Your task to perform on an android device: Search for razer blade on target, select the first entry, add it to the cart, then select checkout. Image 0: 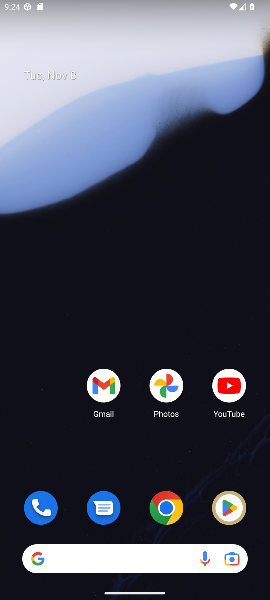
Step 0: click (166, 514)
Your task to perform on an android device: Search for razer blade on target, select the first entry, add it to the cart, then select checkout. Image 1: 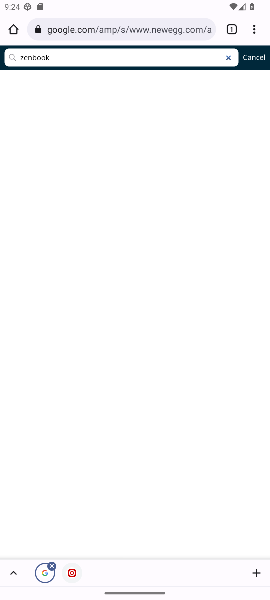
Step 1: click (95, 29)
Your task to perform on an android device: Search for razer blade on target, select the first entry, add it to the cart, then select checkout. Image 2: 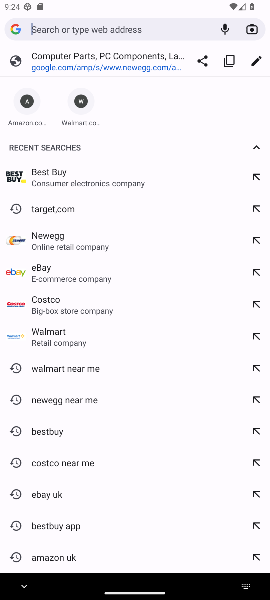
Step 2: type "target"
Your task to perform on an android device: Search for razer blade on target, select the first entry, add it to the cart, then select checkout. Image 3: 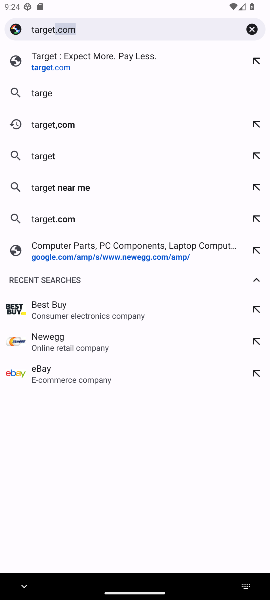
Step 3: type ""
Your task to perform on an android device: Search for razer blade on target, select the first entry, add it to the cart, then select checkout. Image 4: 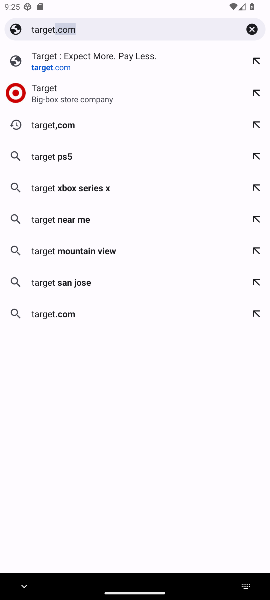
Step 4: click (49, 98)
Your task to perform on an android device: Search for razer blade on target, select the first entry, add it to the cart, then select checkout. Image 5: 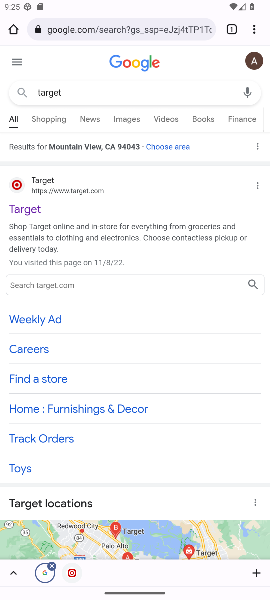
Step 5: click (37, 205)
Your task to perform on an android device: Search for razer blade on target, select the first entry, add it to the cart, then select checkout. Image 6: 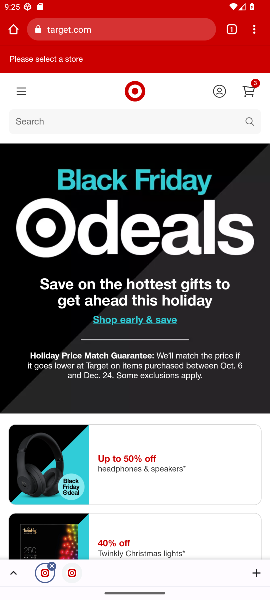
Step 6: click (152, 119)
Your task to perform on an android device: Search for razer blade on target, select the first entry, add it to the cart, then select checkout. Image 7: 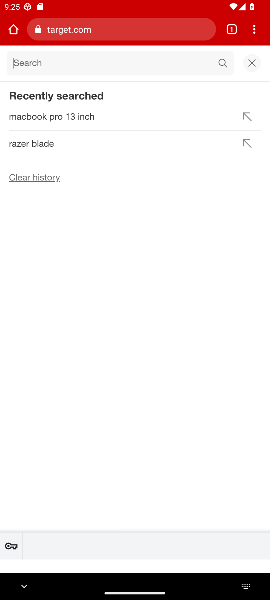
Step 7: type "razer blade"
Your task to perform on an android device: Search for razer blade on target, select the first entry, add it to the cart, then select checkout. Image 8: 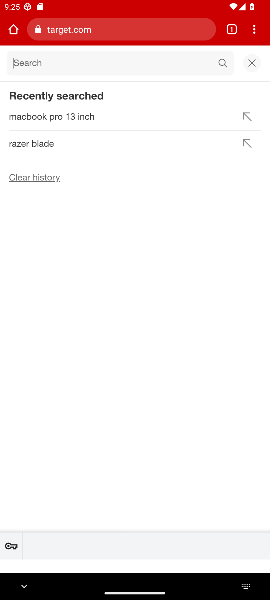
Step 8: type ""
Your task to perform on an android device: Search for razer blade on target, select the first entry, add it to the cart, then select checkout. Image 9: 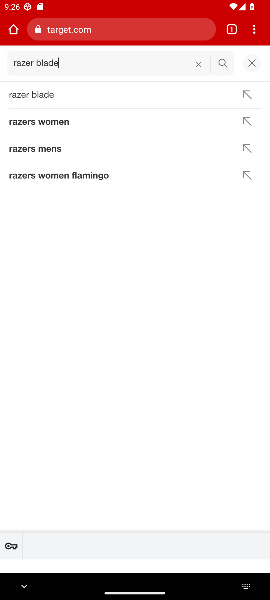
Step 9: click (25, 92)
Your task to perform on an android device: Search for razer blade on target, select the first entry, add it to the cart, then select checkout. Image 10: 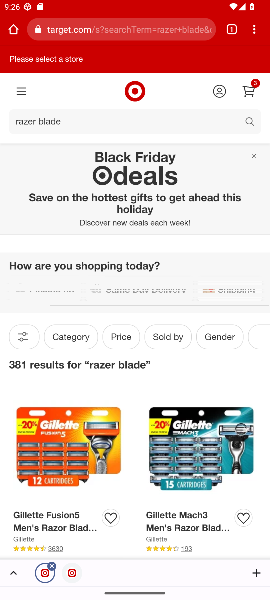
Step 10: drag from (97, 481) to (120, 142)
Your task to perform on an android device: Search for razer blade on target, select the first entry, add it to the cart, then select checkout. Image 11: 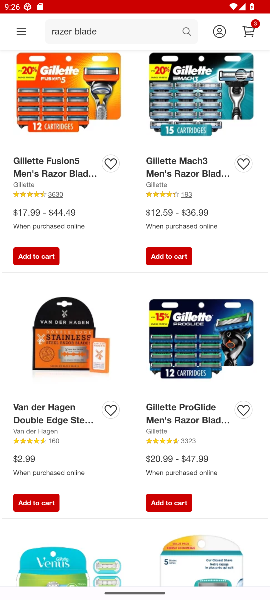
Step 11: click (193, 356)
Your task to perform on an android device: Search for razer blade on target, select the first entry, add it to the cart, then select checkout. Image 12: 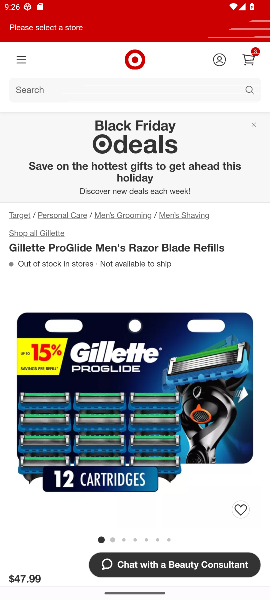
Step 12: drag from (121, 417) to (172, 220)
Your task to perform on an android device: Search for razer blade on target, select the first entry, add it to the cart, then select checkout. Image 13: 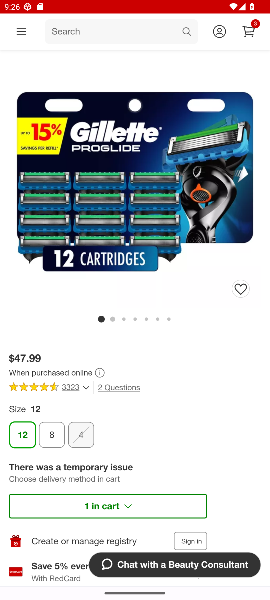
Step 13: drag from (144, 420) to (202, 162)
Your task to perform on an android device: Search for razer blade on target, select the first entry, add it to the cart, then select checkout. Image 14: 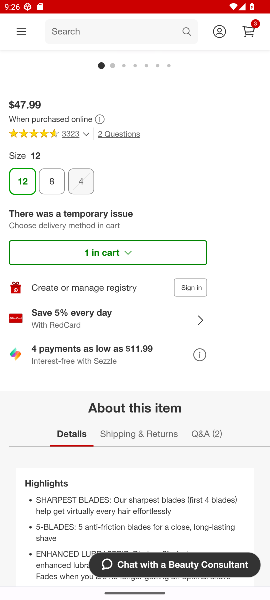
Step 14: click (87, 256)
Your task to perform on an android device: Search for razer blade on target, select the first entry, add it to the cart, then select checkout. Image 15: 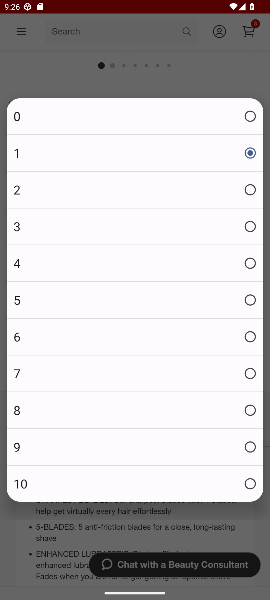
Step 15: click (250, 187)
Your task to perform on an android device: Search for razer blade on target, select the first entry, add it to the cart, then select checkout. Image 16: 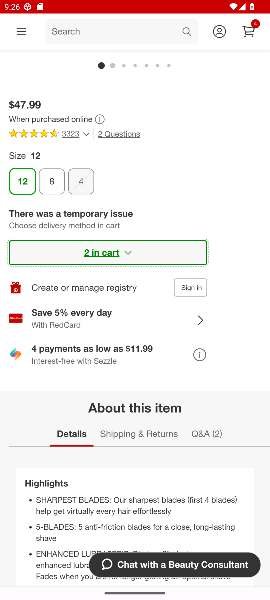
Step 16: drag from (137, 466) to (208, 209)
Your task to perform on an android device: Search for razer blade on target, select the first entry, add it to the cart, then select checkout. Image 17: 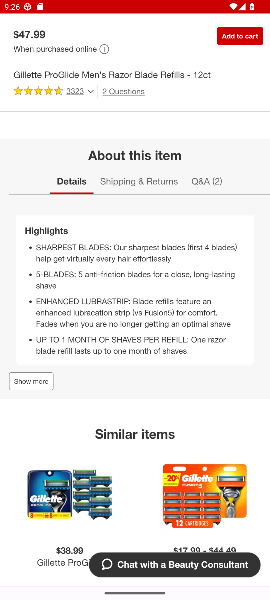
Step 17: drag from (146, 463) to (174, 156)
Your task to perform on an android device: Search for razer blade on target, select the first entry, add it to the cart, then select checkout. Image 18: 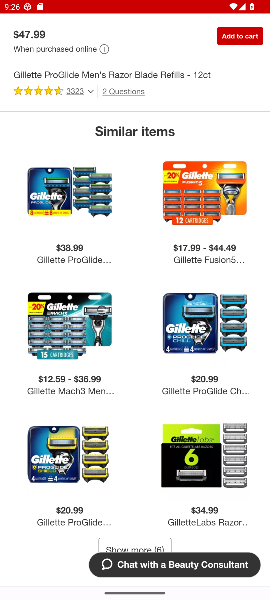
Step 18: click (244, 39)
Your task to perform on an android device: Search for razer blade on target, select the first entry, add it to the cart, then select checkout. Image 19: 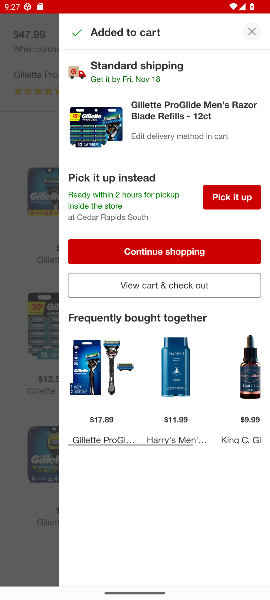
Step 19: click (144, 281)
Your task to perform on an android device: Search for razer blade on target, select the first entry, add it to the cart, then select checkout. Image 20: 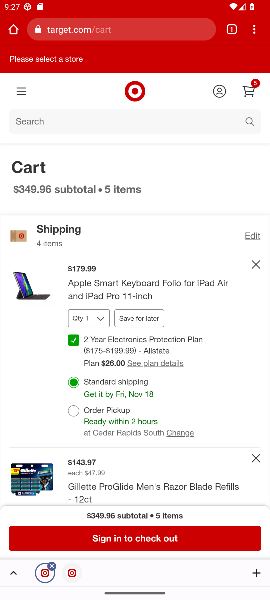
Step 20: click (195, 539)
Your task to perform on an android device: Search for razer blade on target, select the first entry, add it to the cart, then select checkout. Image 21: 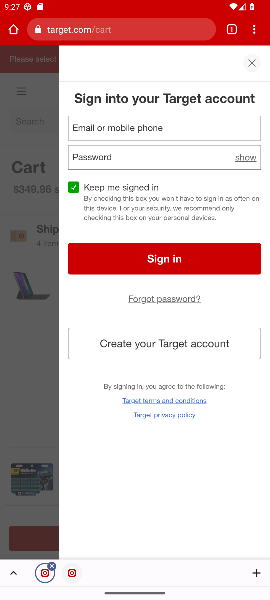
Step 21: task complete